Your task to perform on an android device: open sync settings in chrome Image 0: 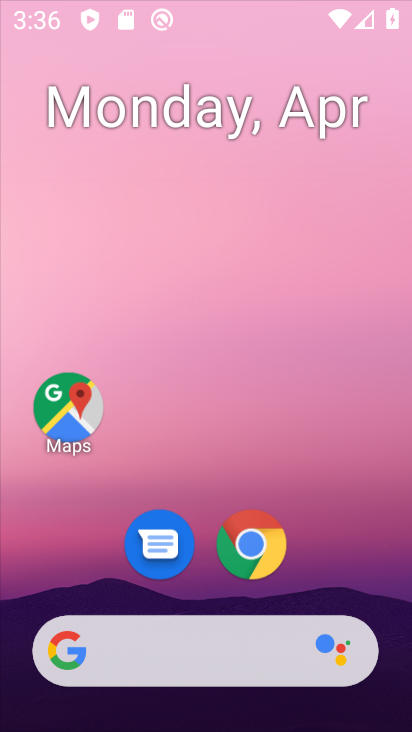
Step 0: drag from (248, 204) to (276, 1)
Your task to perform on an android device: open sync settings in chrome Image 1: 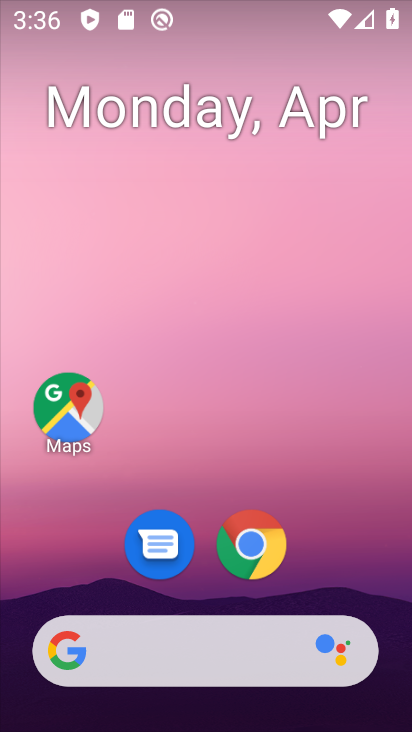
Step 1: drag from (358, 548) to (322, 86)
Your task to perform on an android device: open sync settings in chrome Image 2: 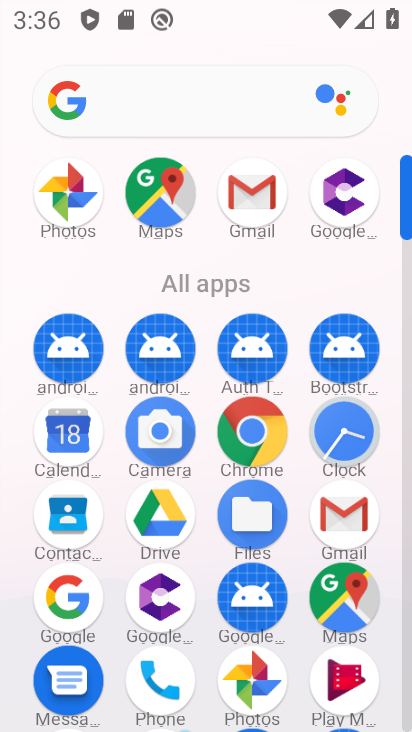
Step 2: click (249, 427)
Your task to perform on an android device: open sync settings in chrome Image 3: 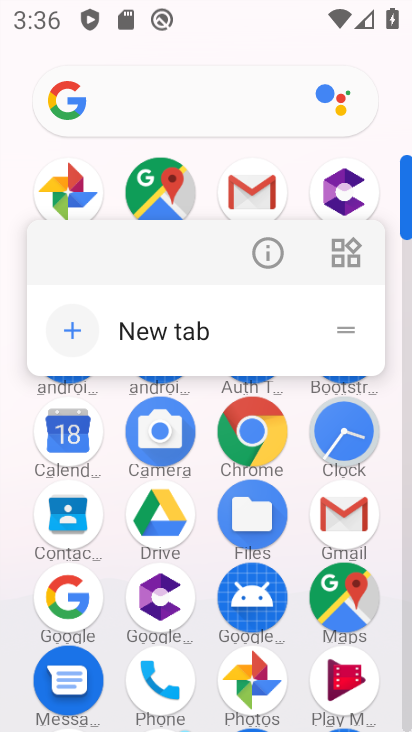
Step 3: click (224, 348)
Your task to perform on an android device: open sync settings in chrome Image 4: 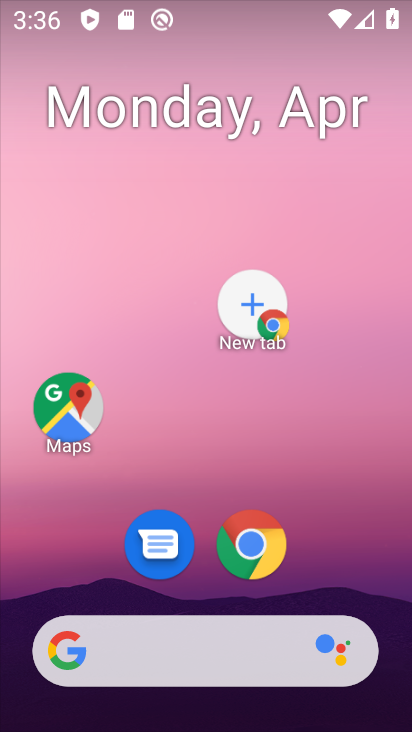
Step 4: click (253, 298)
Your task to perform on an android device: open sync settings in chrome Image 5: 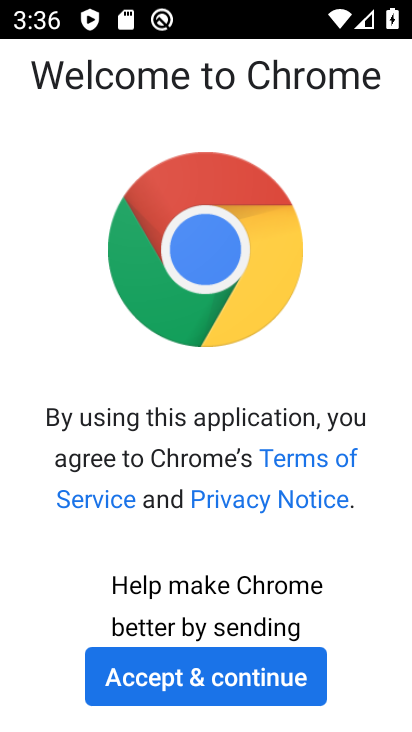
Step 5: click (261, 686)
Your task to perform on an android device: open sync settings in chrome Image 6: 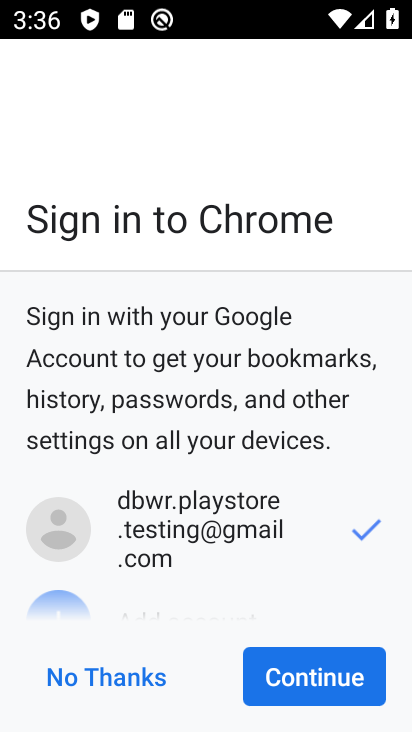
Step 6: click (150, 675)
Your task to perform on an android device: open sync settings in chrome Image 7: 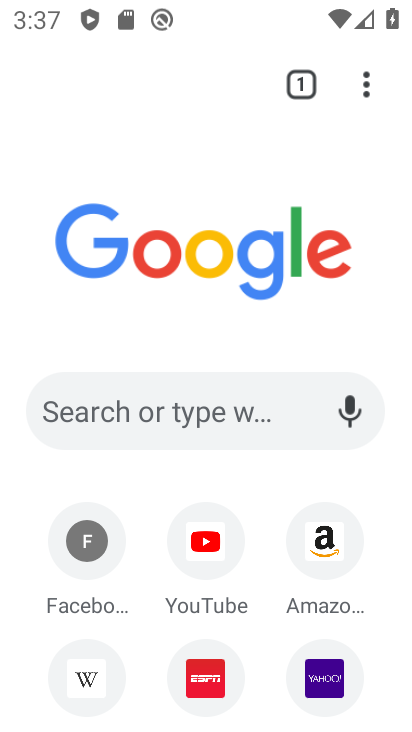
Step 7: click (361, 95)
Your task to perform on an android device: open sync settings in chrome Image 8: 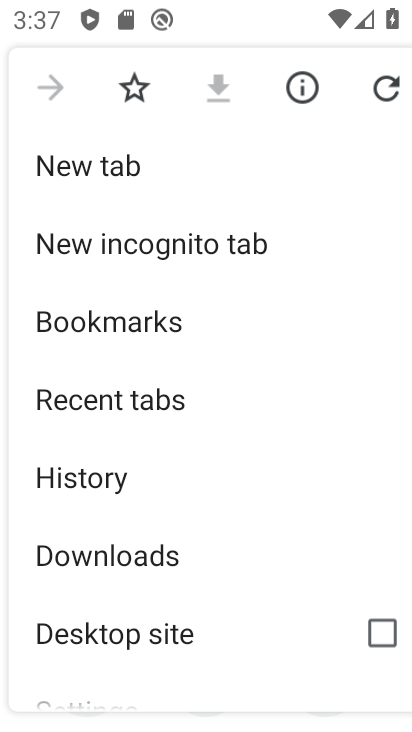
Step 8: drag from (217, 631) to (243, 83)
Your task to perform on an android device: open sync settings in chrome Image 9: 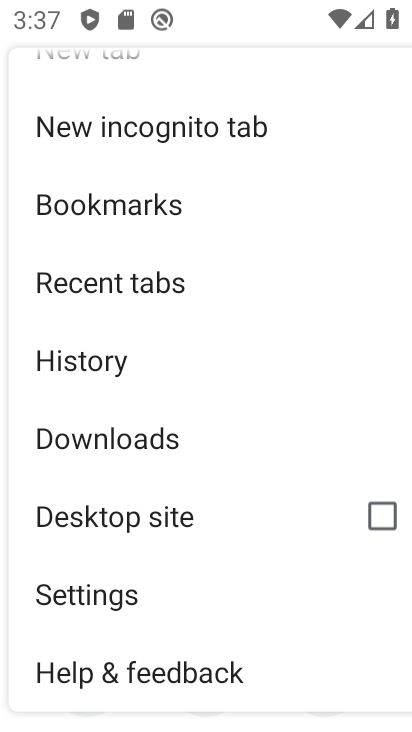
Step 9: click (181, 598)
Your task to perform on an android device: open sync settings in chrome Image 10: 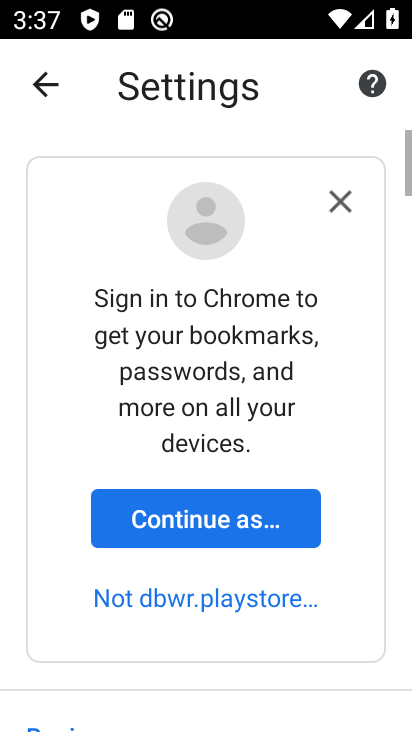
Step 10: drag from (216, 632) to (252, 75)
Your task to perform on an android device: open sync settings in chrome Image 11: 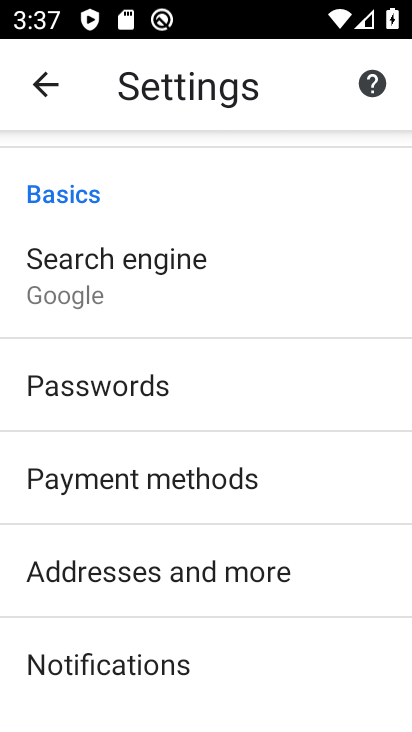
Step 11: drag from (234, 661) to (277, 122)
Your task to perform on an android device: open sync settings in chrome Image 12: 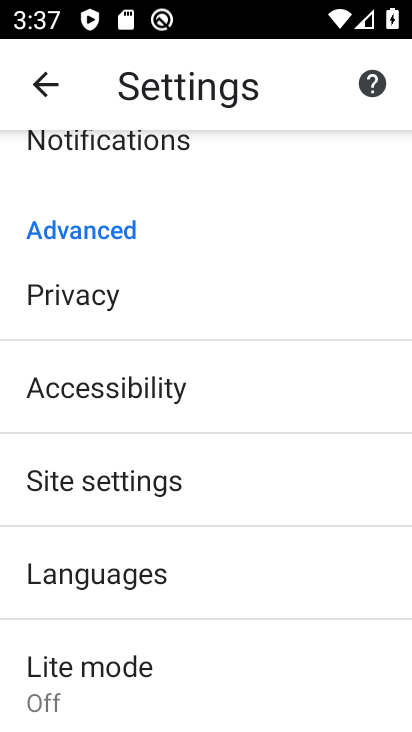
Step 12: click (119, 484)
Your task to perform on an android device: open sync settings in chrome Image 13: 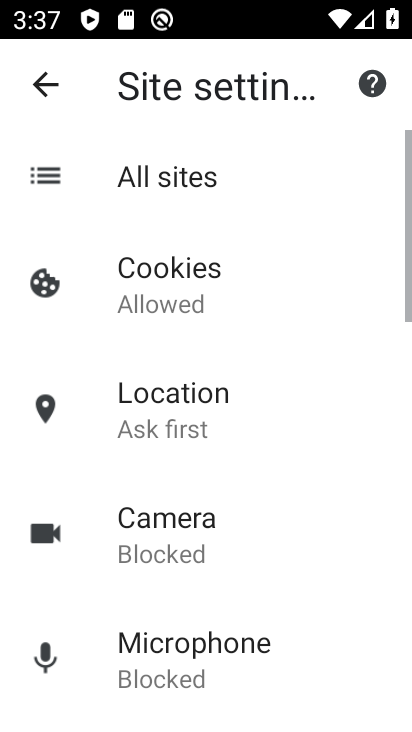
Step 13: drag from (231, 560) to (268, 139)
Your task to perform on an android device: open sync settings in chrome Image 14: 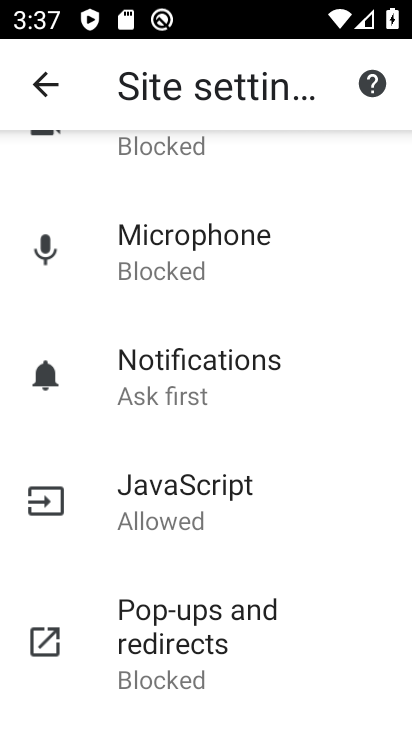
Step 14: drag from (265, 649) to (309, 187)
Your task to perform on an android device: open sync settings in chrome Image 15: 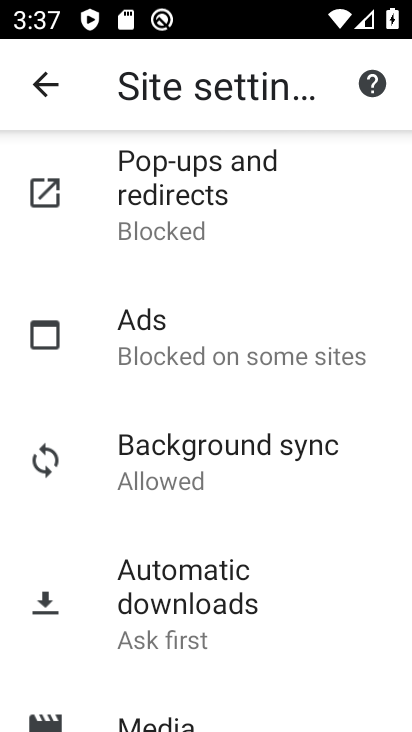
Step 15: click (212, 443)
Your task to perform on an android device: open sync settings in chrome Image 16: 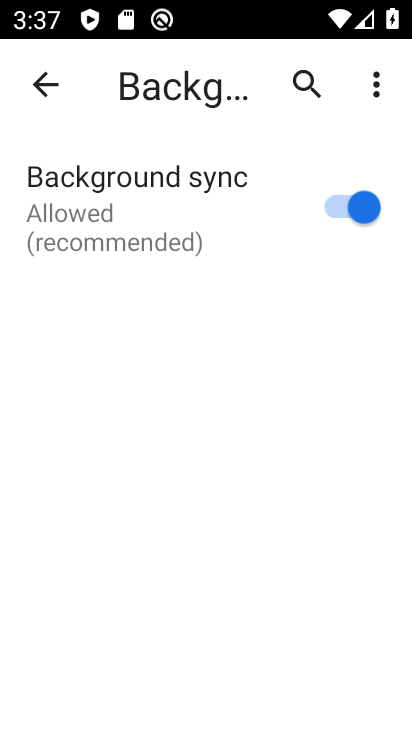
Step 16: task complete